Your task to perform on an android device: open sync settings in chrome Image 0: 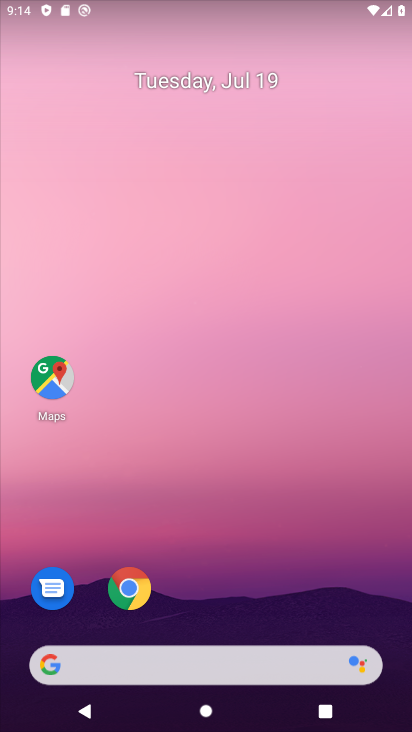
Step 0: click (129, 587)
Your task to perform on an android device: open sync settings in chrome Image 1: 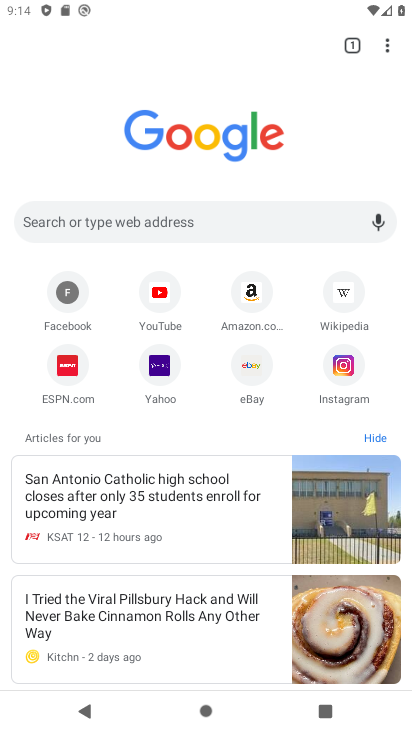
Step 1: click (387, 39)
Your task to perform on an android device: open sync settings in chrome Image 2: 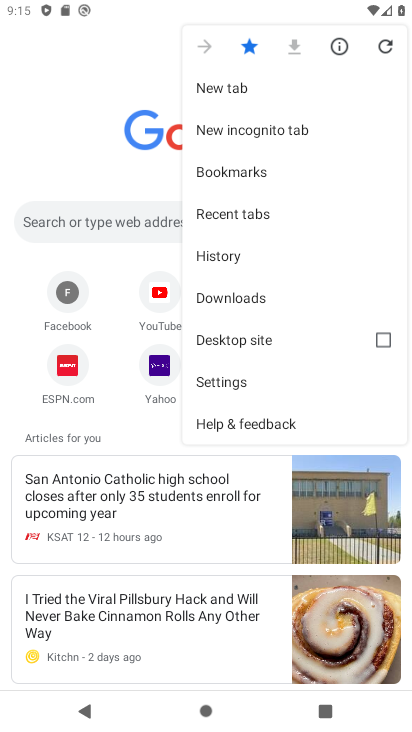
Step 2: click (253, 381)
Your task to perform on an android device: open sync settings in chrome Image 3: 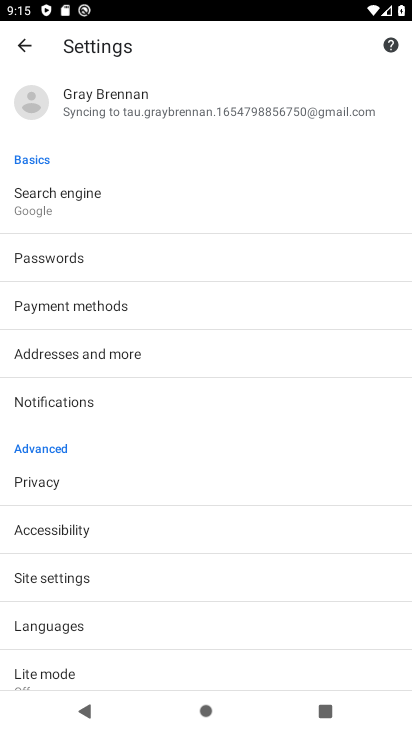
Step 3: click (104, 575)
Your task to perform on an android device: open sync settings in chrome Image 4: 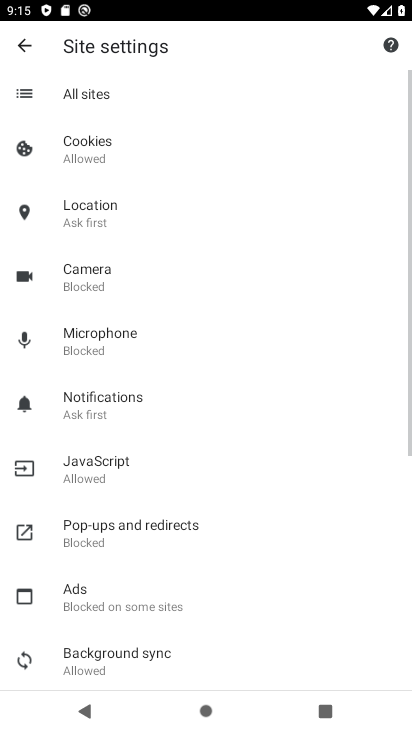
Step 4: click (17, 39)
Your task to perform on an android device: open sync settings in chrome Image 5: 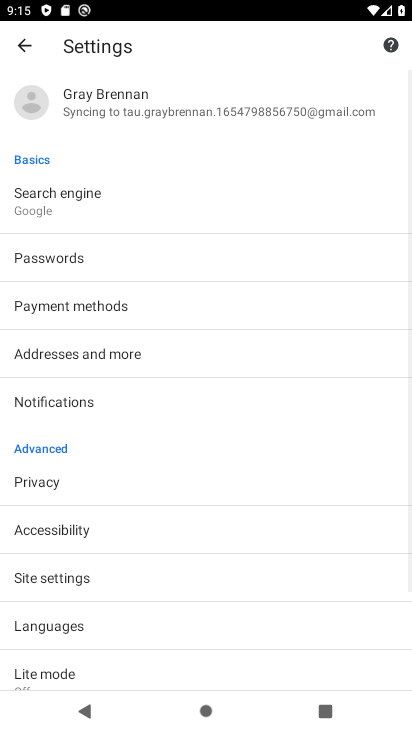
Step 5: click (130, 102)
Your task to perform on an android device: open sync settings in chrome Image 6: 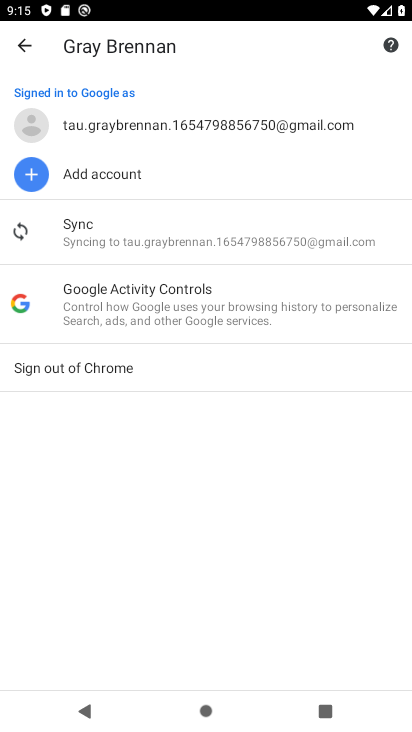
Step 6: click (116, 228)
Your task to perform on an android device: open sync settings in chrome Image 7: 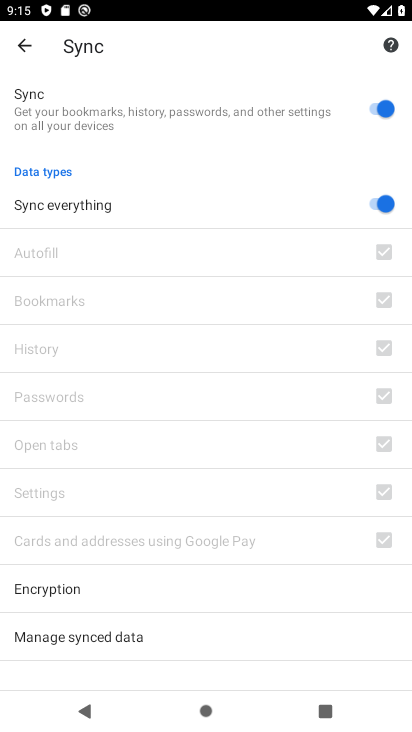
Step 7: task complete